Your task to perform on an android device: check battery use Image 0: 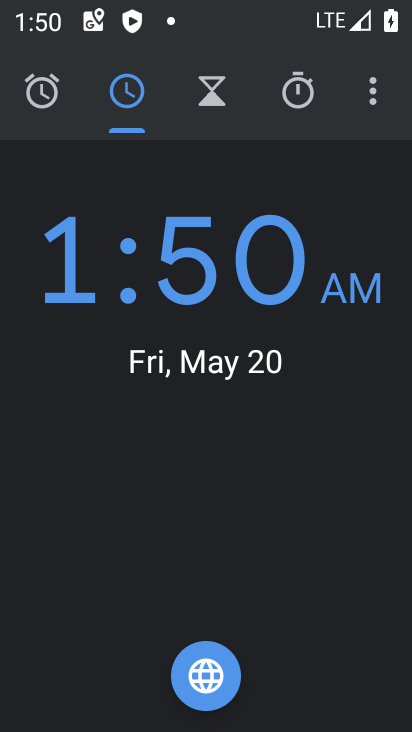
Step 0: press home button
Your task to perform on an android device: check battery use Image 1: 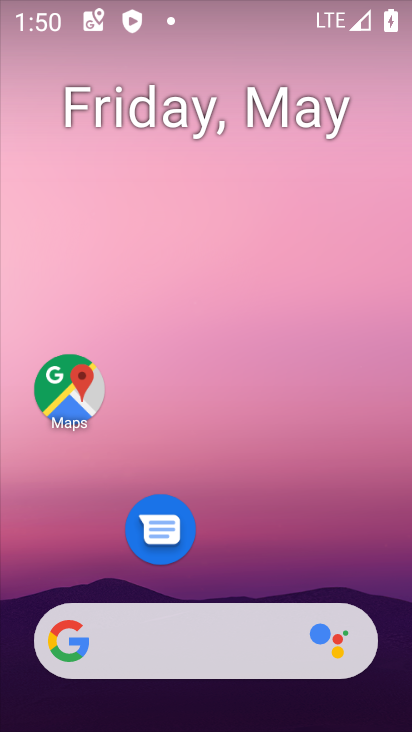
Step 1: drag from (223, 580) to (255, 162)
Your task to perform on an android device: check battery use Image 2: 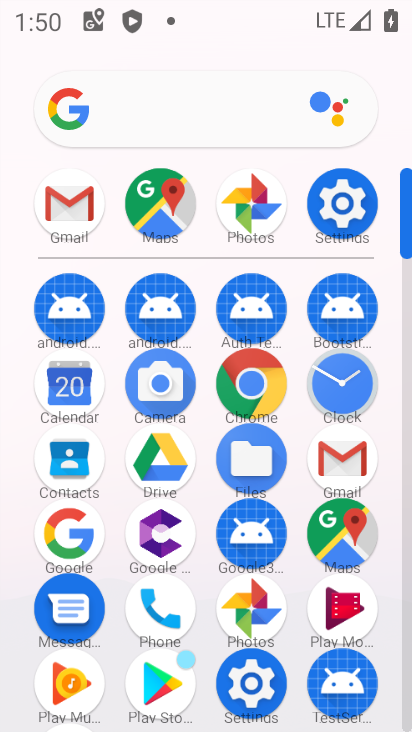
Step 2: click (346, 185)
Your task to perform on an android device: check battery use Image 3: 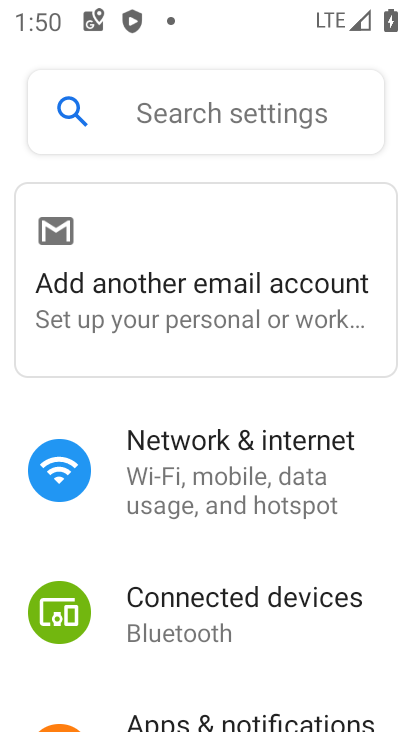
Step 3: drag from (220, 603) to (317, 125)
Your task to perform on an android device: check battery use Image 4: 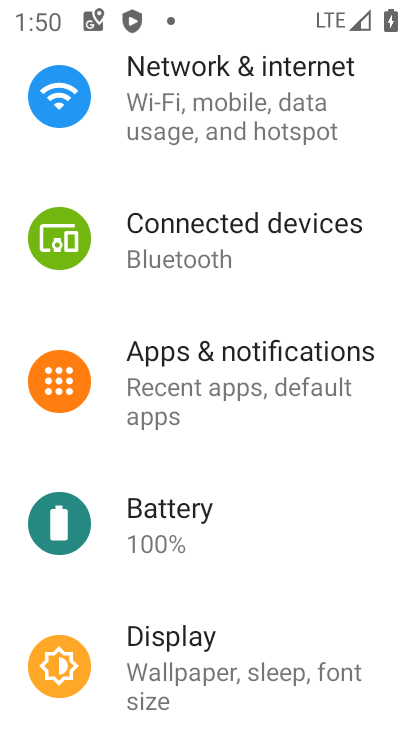
Step 4: click (236, 519)
Your task to perform on an android device: check battery use Image 5: 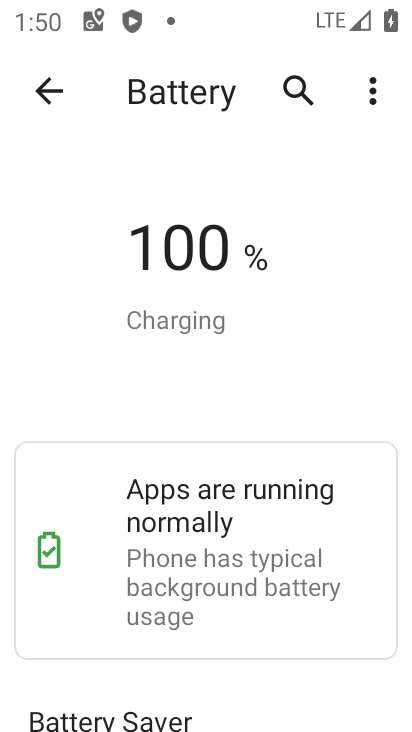
Step 5: drag from (199, 669) to (294, 255)
Your task to perform on an android device: check battery use Image 6: 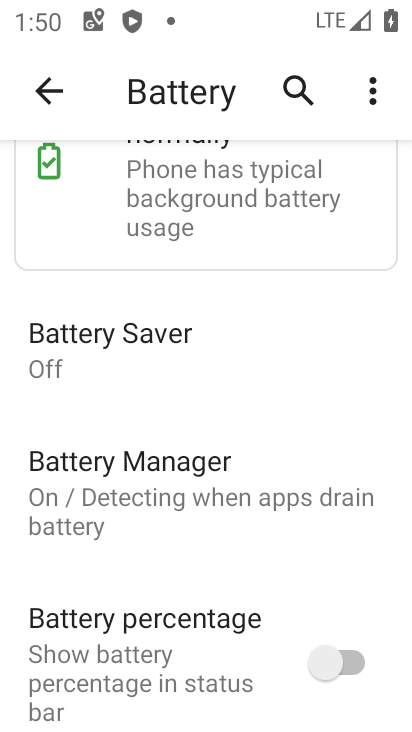
Step 6: click (380, 97)
Your task to perform on an android device: check battery use Image 7: 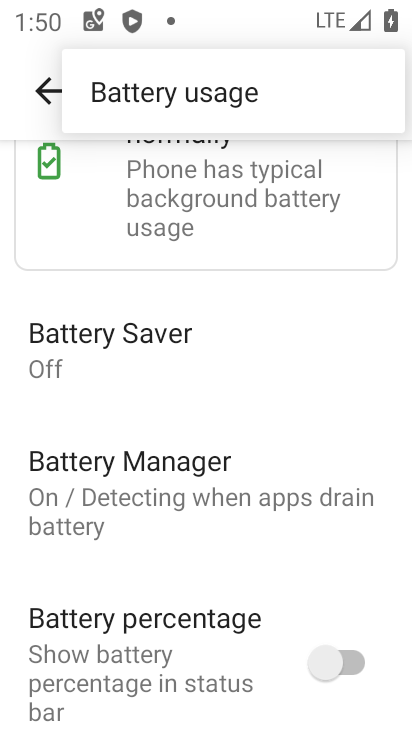
Step 7: click (282, 89)
Your task to perform on an android device: check battery use Image 8: 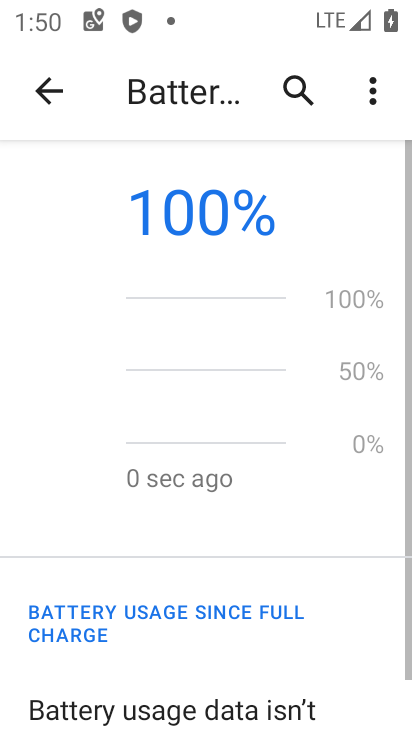
Step 8: task complete